Your task to perform on an android device: toggle improve location accuracy Image 0: 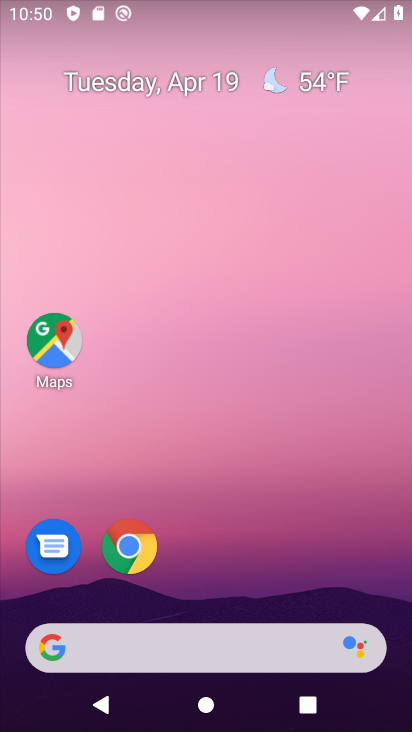
Step 0: click (137, 639)
Your task to perform on an android device: toggle improve location accuracy Image 1: 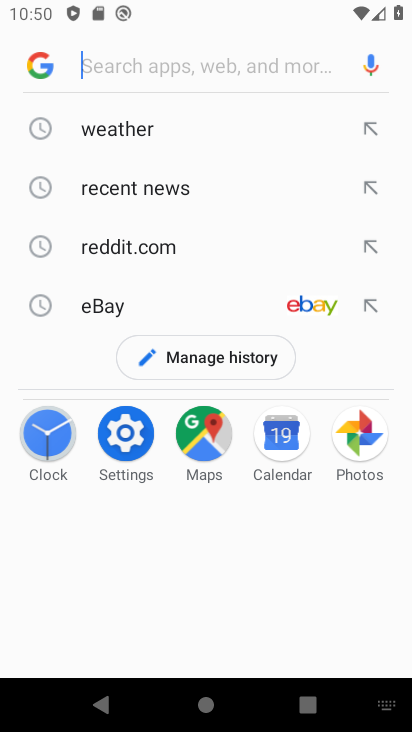
Step 1: press home button
Your task to perform on an android device: toggle improve location accuracy Image 2: 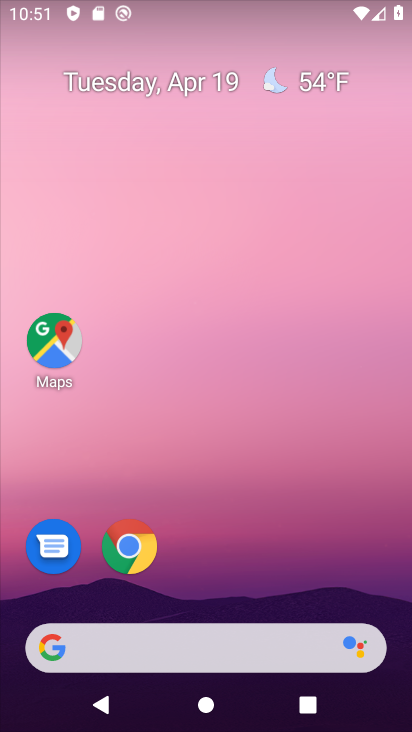
Step 2: drag from (256, 707) to (285, 193)
Your task to perform on an android device: toggle improve location accuracy Image 3: 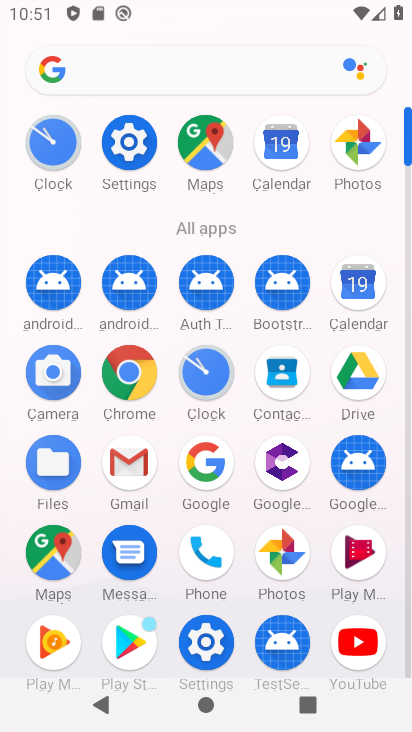
Step 3: click (203, 159)
Your task to perform on an android device: toggle improve location accuracy Image 4: 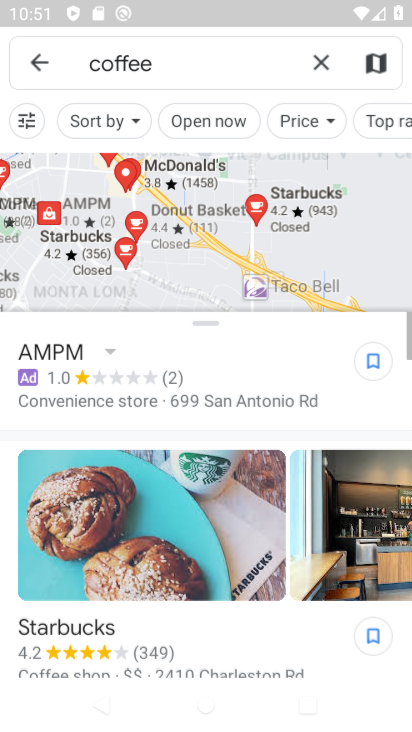
Step 4: click (34, 67)
Your task to perform on an android device: toggle improve location accuracy Image 5: 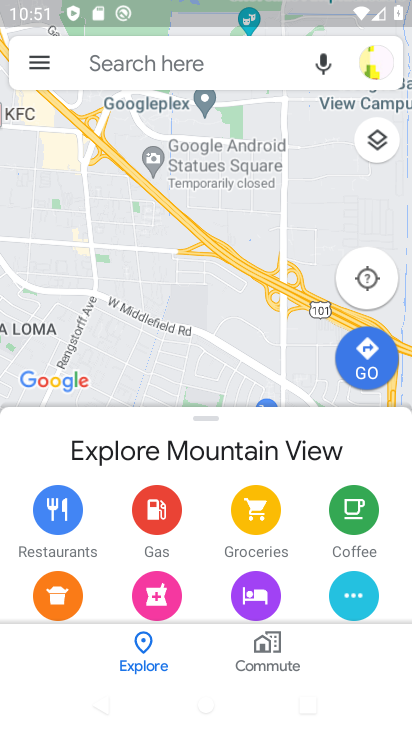
Step 5: click (40, 57)
Your task to perform on an android device: toggle improve location accuracy Image 6: 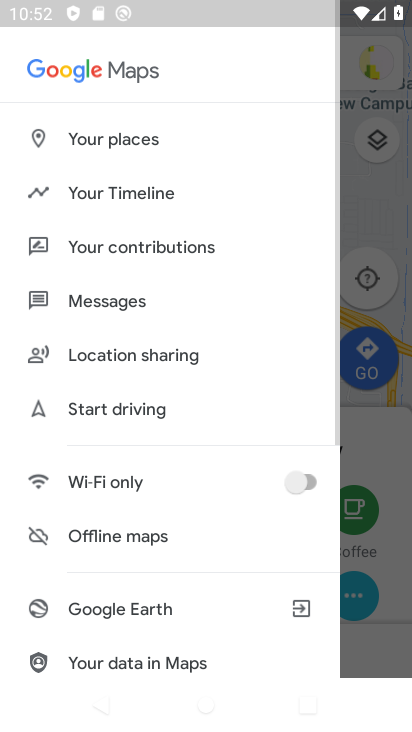
Step 6: drag from (181, 633) to (171, 188)
Your task to perform on an android device: toggle improve location accuracy Image 7: 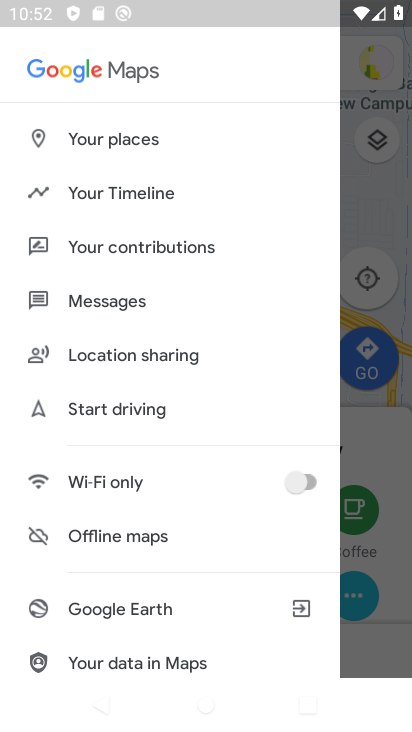
Step 7: drag from (232, 622) to (202, 197)
Your task to perform on an android device: toggle improve location accuracy Image 8: 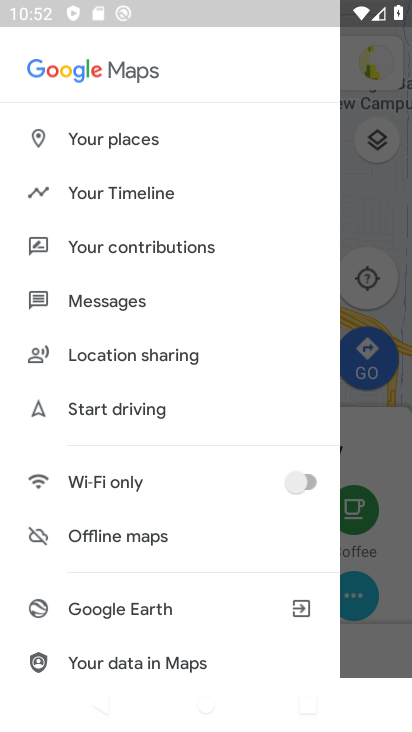
Step 8: drag from (274, 650) to (130, 13)
Your task to perform on an android device: toggle improve location accuracy Image 9: 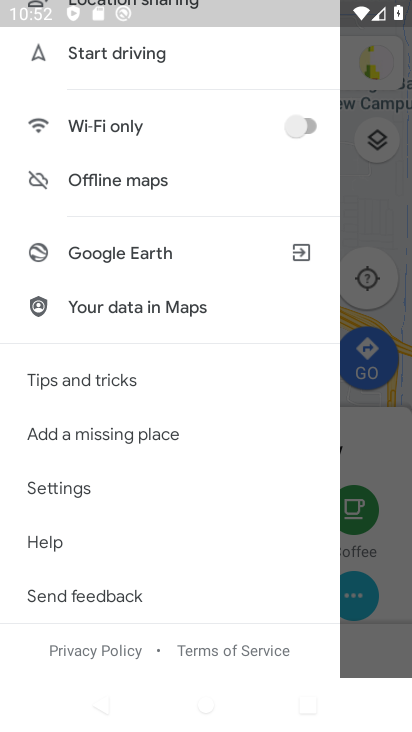
Step 9: click (98, 490)
Your task to perform on an android device: toggle improve location accuracy Image 10: 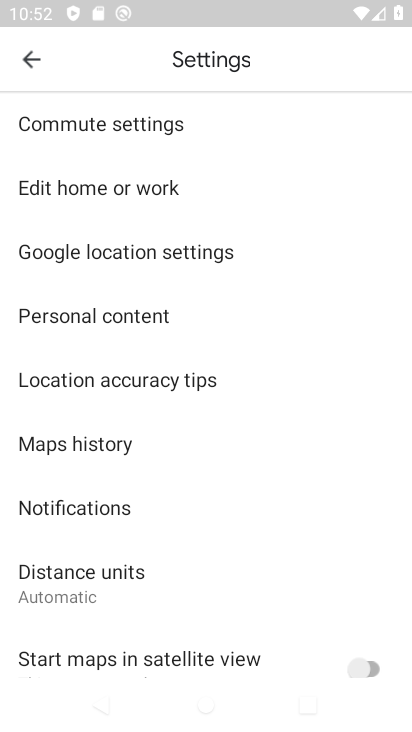
Step 10: click (194, 250)
Your task to perform on an android device: toggle improve location accuracy Image 11: 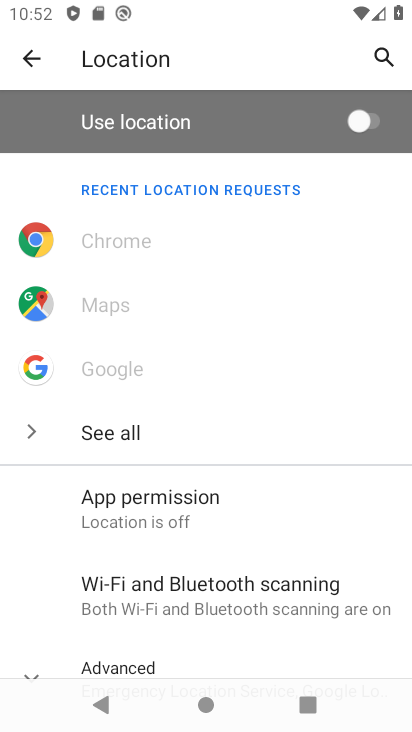
Step 11: drag from (315, 648) to (320, 45)
Your task to perform on an android device: toggle improve location accuracy Image 12: 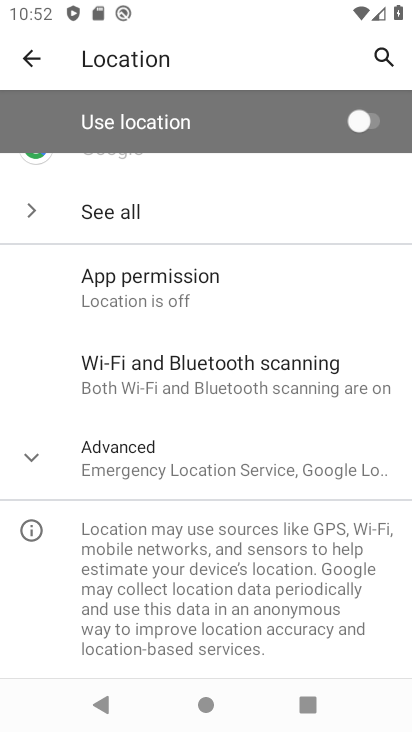
Step 12: click (198, 452)
Your task to perform on an android device: toggle improve location accuracy Image 13: 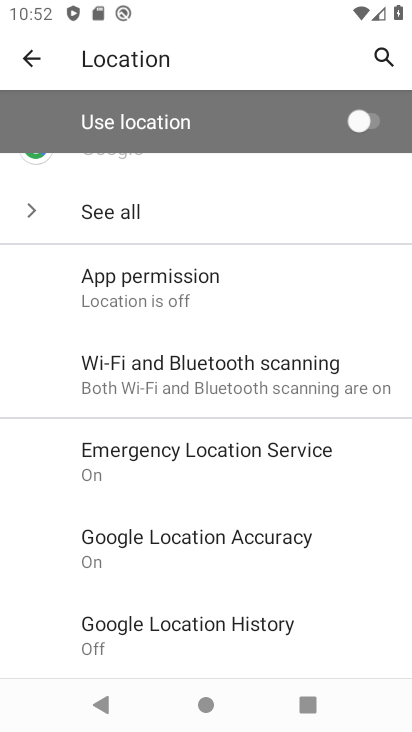
Step 13: click (271, 543)
Your task to perform on an android device: toggle improve location accuracy Image 14: 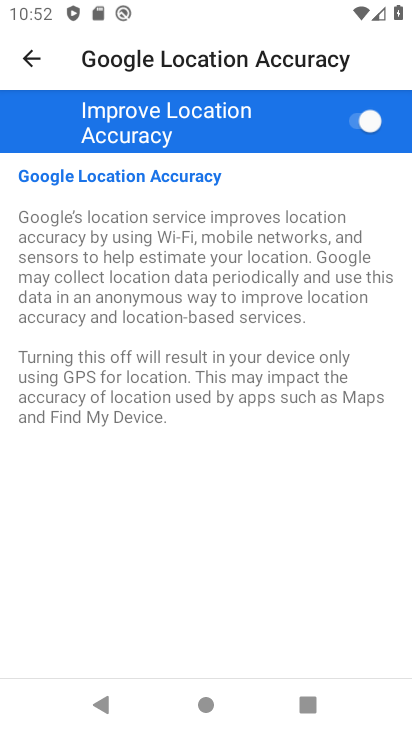
Step 14: click (370, 120)
Your task to perform on an android device: toggle improve location accuracy Image 15: 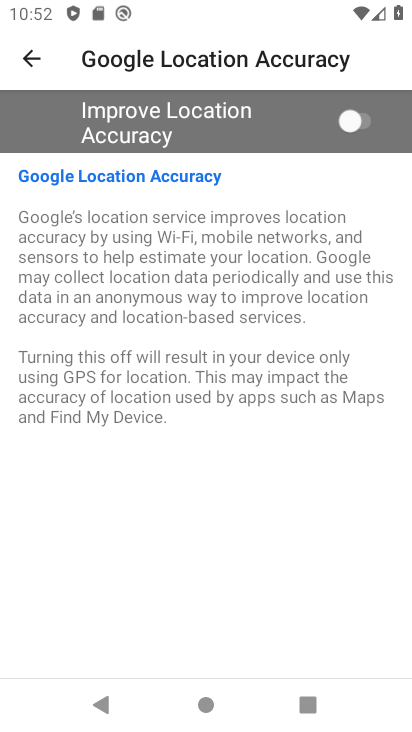
Step 15: task complete